Your task to perform on an android device: turn off picture-in-picture Image 0: 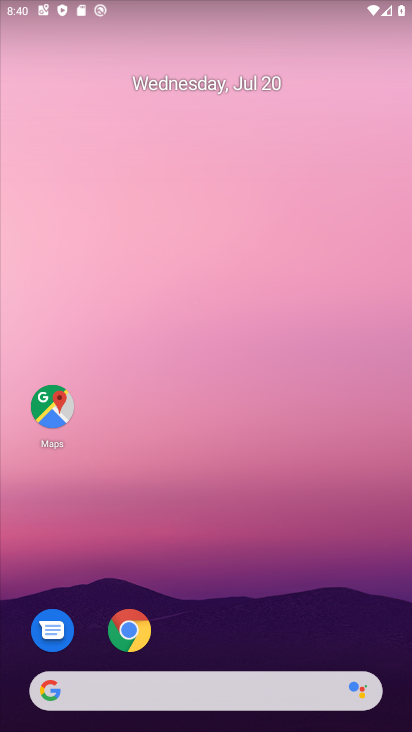
Step 0: drag from (392, 715) to (344, 176)
Your task to perform on an android device: turn off picture-in-picture Image 1: 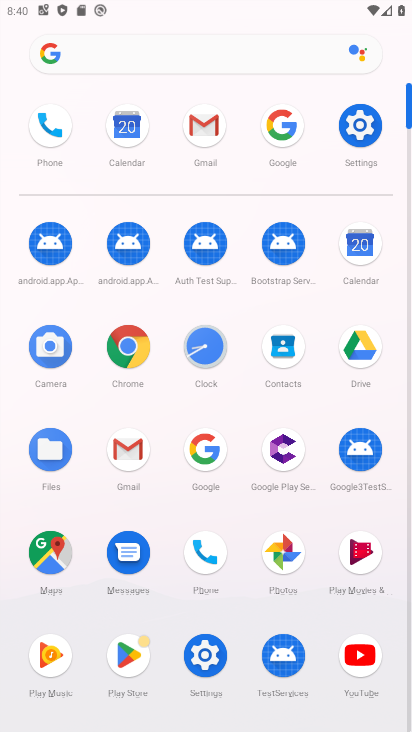
Step 1: click (133, 346)
Your task to perform on an android device: turn off picture-in-picture Image 2: 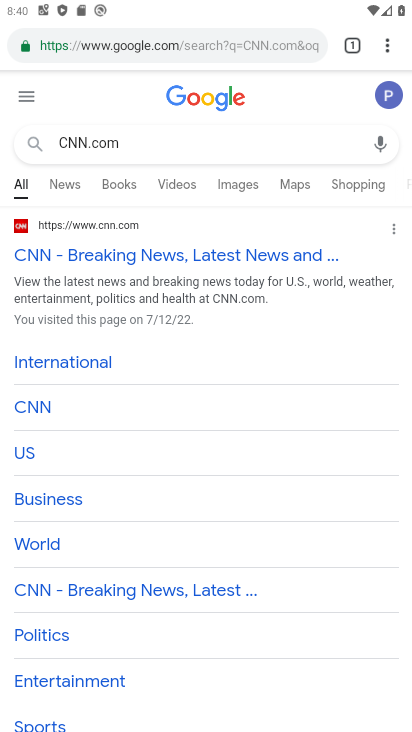
Step 2: press home button
Your task to perform on an android device: turn off picture-in-picture Image 3: 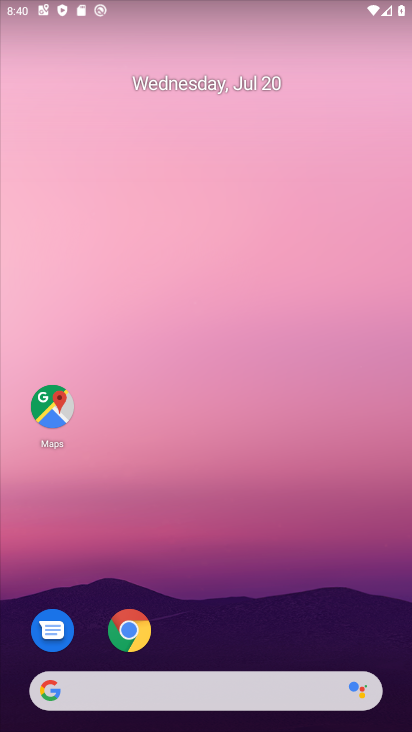
Step 3: click (133, 621)
Your task to perform on an android device: turn off picture-in-picture Image 4: 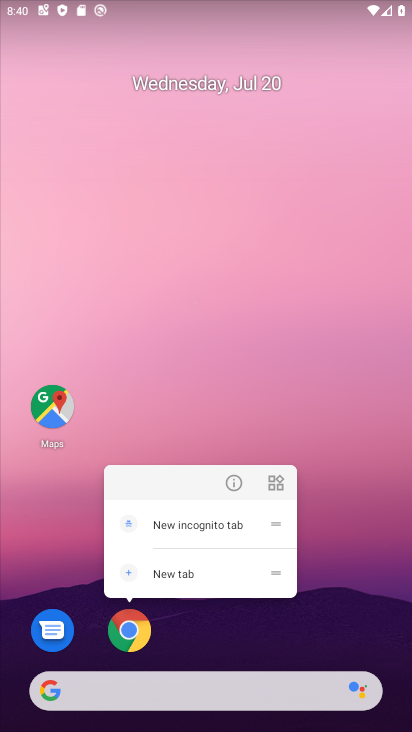
Step 4: click (236, 480)
Your task to perform on an android device: turn off picture-in-picture Image 5: 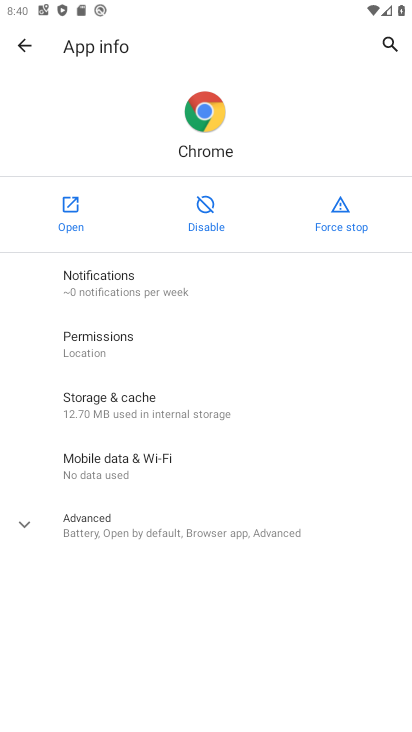
Step 5: click (27, 516)
Your task to perform on an android device: turn off picture-in-picture Image 6: 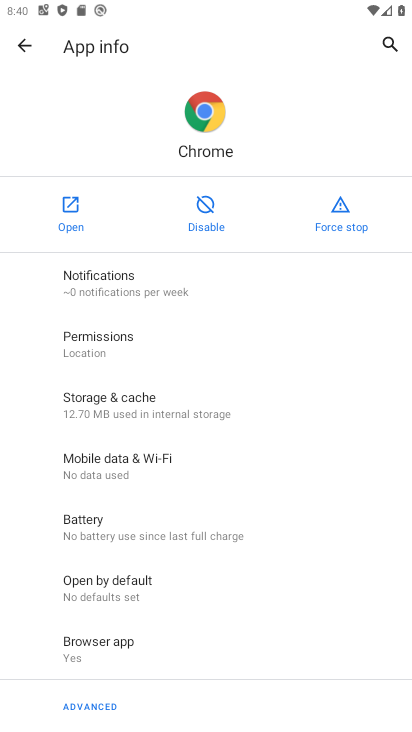
Step 6: drag from (278, 681) to (324, 415)
Your task to perform on an android device: turn off picture-in-picture Image 7: 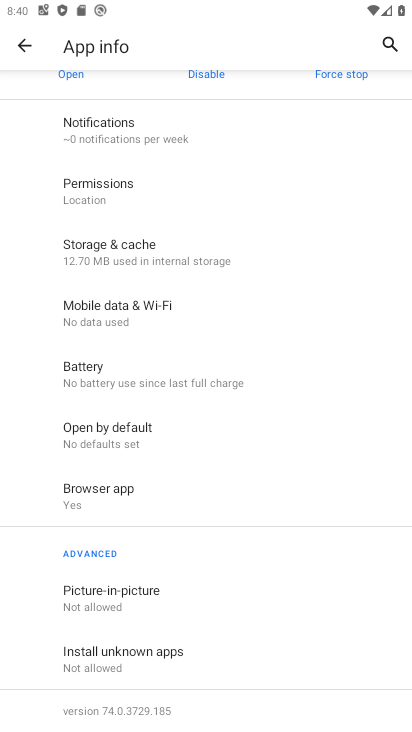
Step 7: click (78, 593)
Your task to perform on an android device: turn off picture-in-picture Image 8: 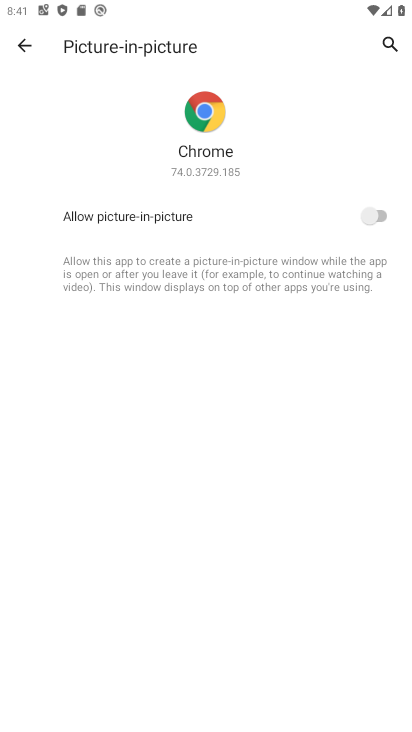
Step 8: task complete